Your task to perform on an android device: Open Google Maps Image 0: 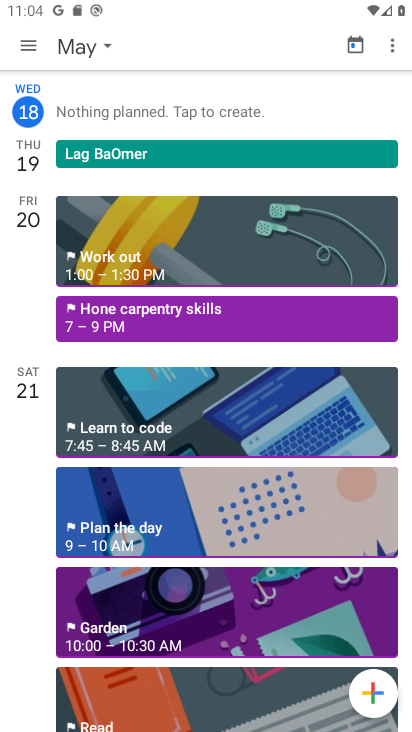
Step 0: press home button
Your task to perform on an android device: Open Google Maps Image 1: 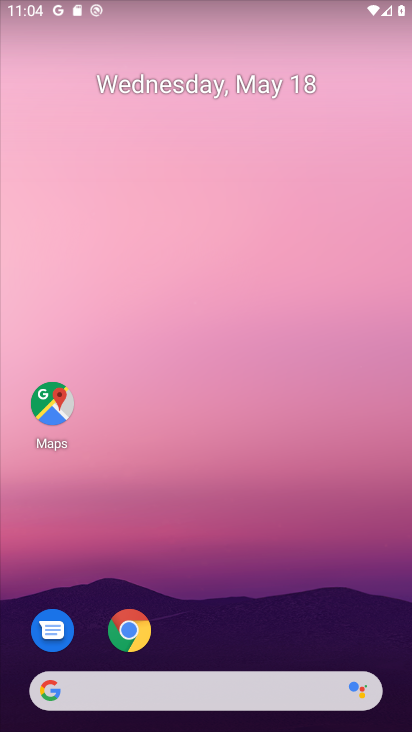
Step 1: click (50, 393)
Your task to perform on an android device: Open Google Maps Image 2: 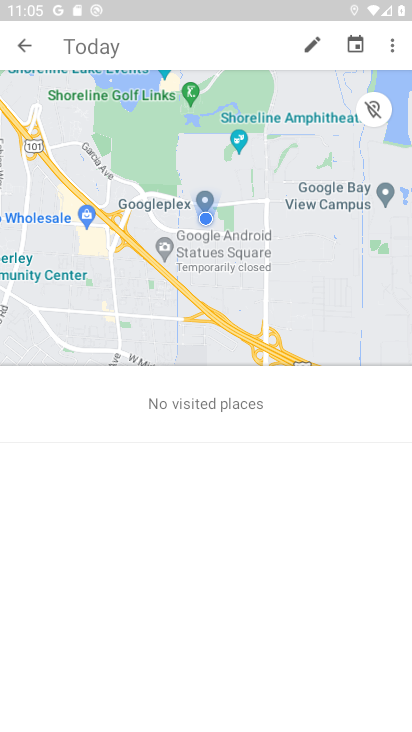
Step 2: task complete